Your task to perform on an android device: snooze an email in the gmail app Image 0: 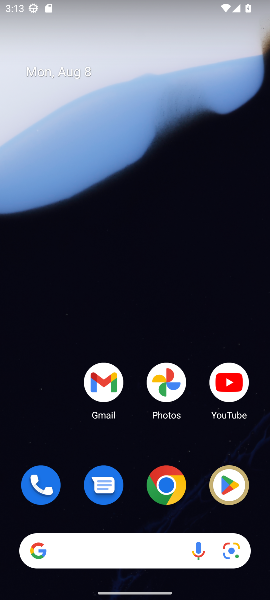
Step 0: press back button
Your task to perform on an android device: snooze an email in the gmail app Image 1: 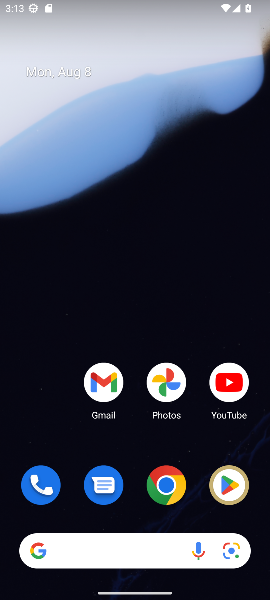
Step 1: press back button
Your task to perform on an android device: snooze an email in the gmail app Image 2: 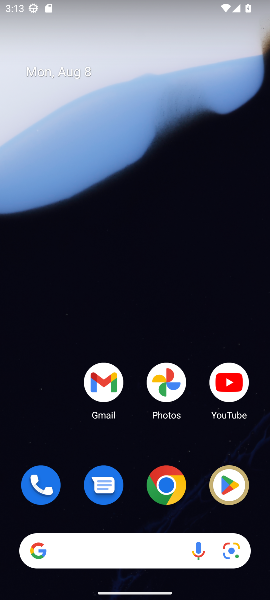
Step 2: drag from (217, 495) to (183, 156)
Your task to perform on an android device: snooze an email in the gmail app Image 3: 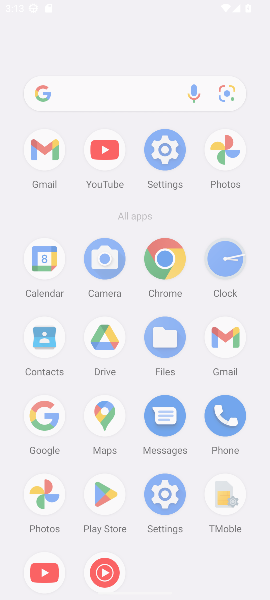
Step 3: drag from (139, 477) to (85, 99)
Your task to perform on an android device: snooze an email in the gmail app Image 4: 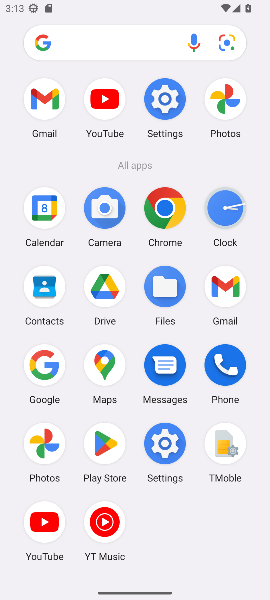
Step 4: click (223, 284)
Your task to perform on an android device: snooze an email in the gmail app Image 5: 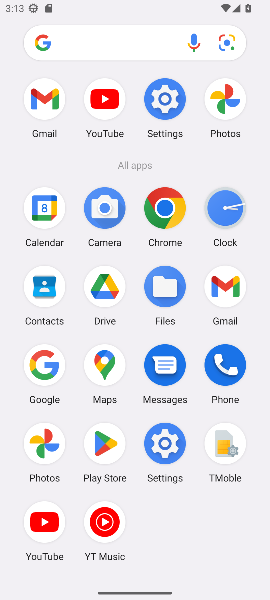
Step 5: click (224, 284)
Your task to perform on an android device: snooze an email in the gmail app Image 6: 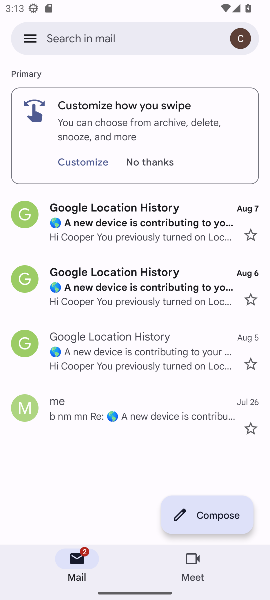
Step 6: click (99, 223)
Your task to perform on an android device: snooze an email in the gmail app Image 7: 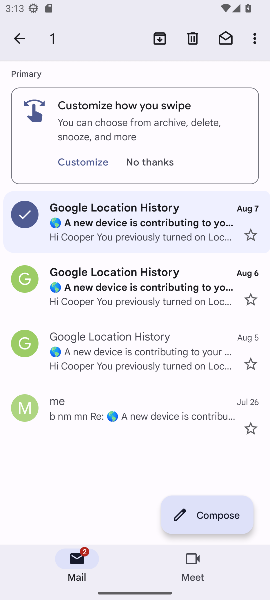
Step 7: click (254, 38)
Your task to perform on an android device: snooze an email in the gmail app Image 8: 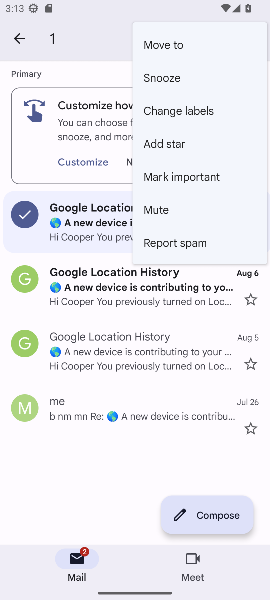
Step 8: click (166, 73)
Your task to perform on an android device: snooze an email in the gmail app Image 9: 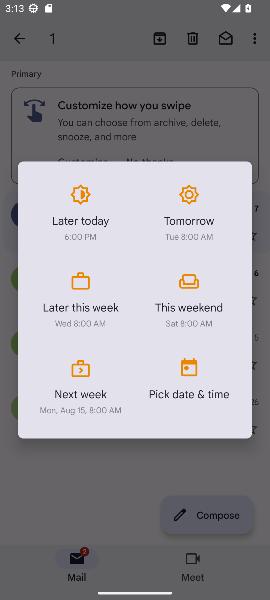
Step 9: click (76, 219)
Your task to perform on an android device: snooze an email in the gmail app Image 10: 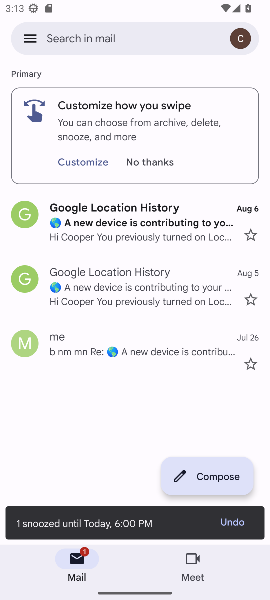
Step 10: task complete